Your task to perform on an android device: open app "Adobe Express: Graphic Design" (install if not already installed) and enter user name: "deliveries@gmail.com" and password: "regimentation" Image 0: 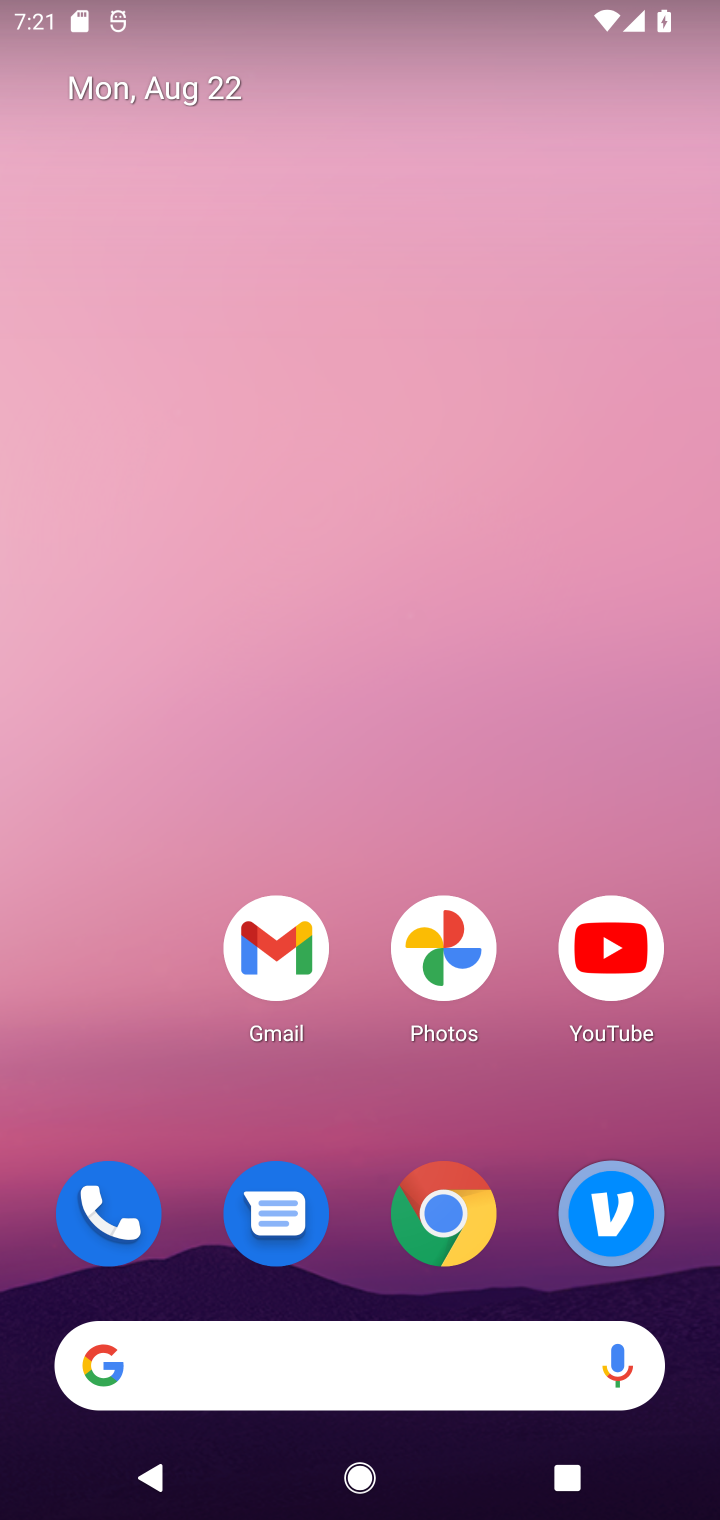
Step 0: drag from (347, 1137) to (428, 203)
Your task to perform on an android device: open app "Adobe Express: Graphic Design" (install if not already installed) and enter user name: "deliveries@gmail.com" and password: "regimentation" Image 1: 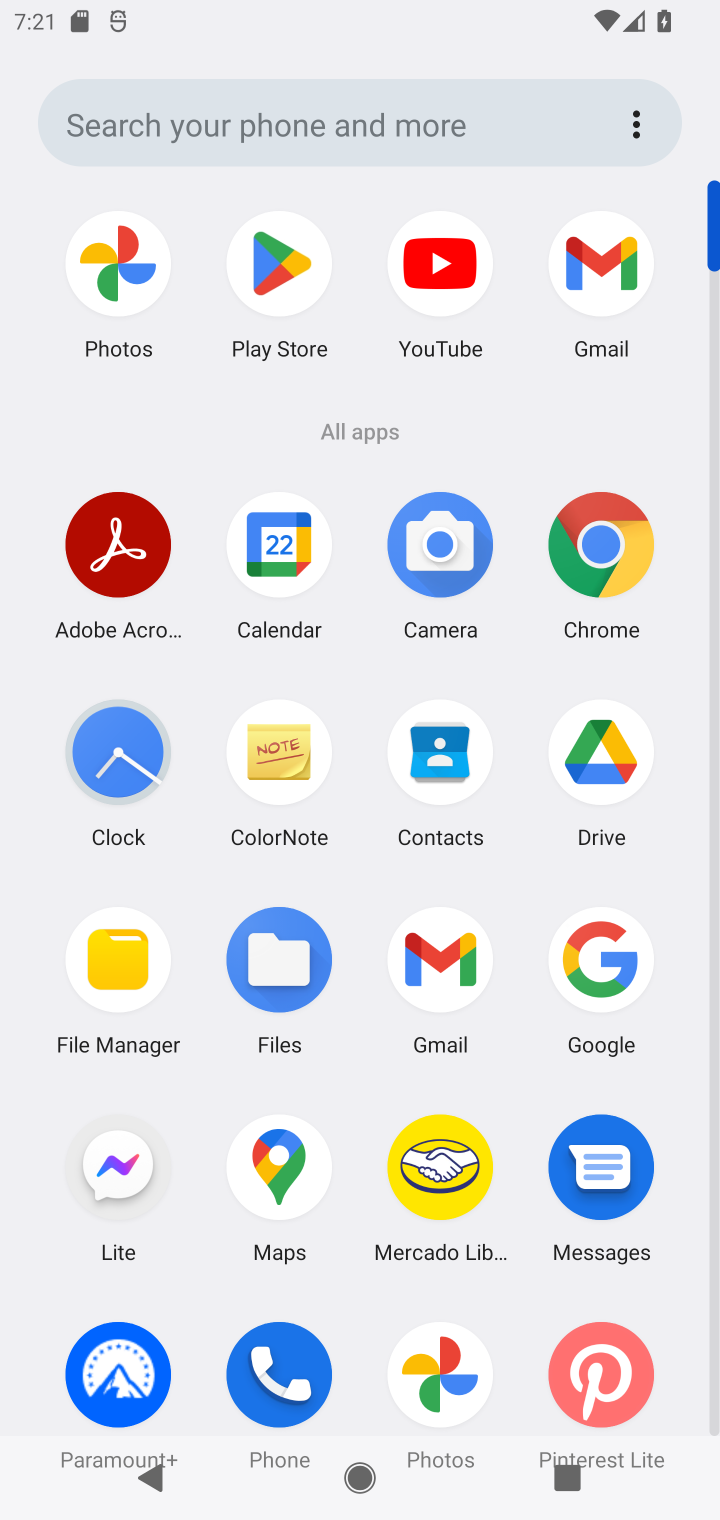
Step 1: click (274, 260)
Your task to perform on an android device: open app "Adobe Express: Graphic Design" (install if not already installed) and enter user name: "deliveries@gmail.com" and password: "regimentation" Image 2: 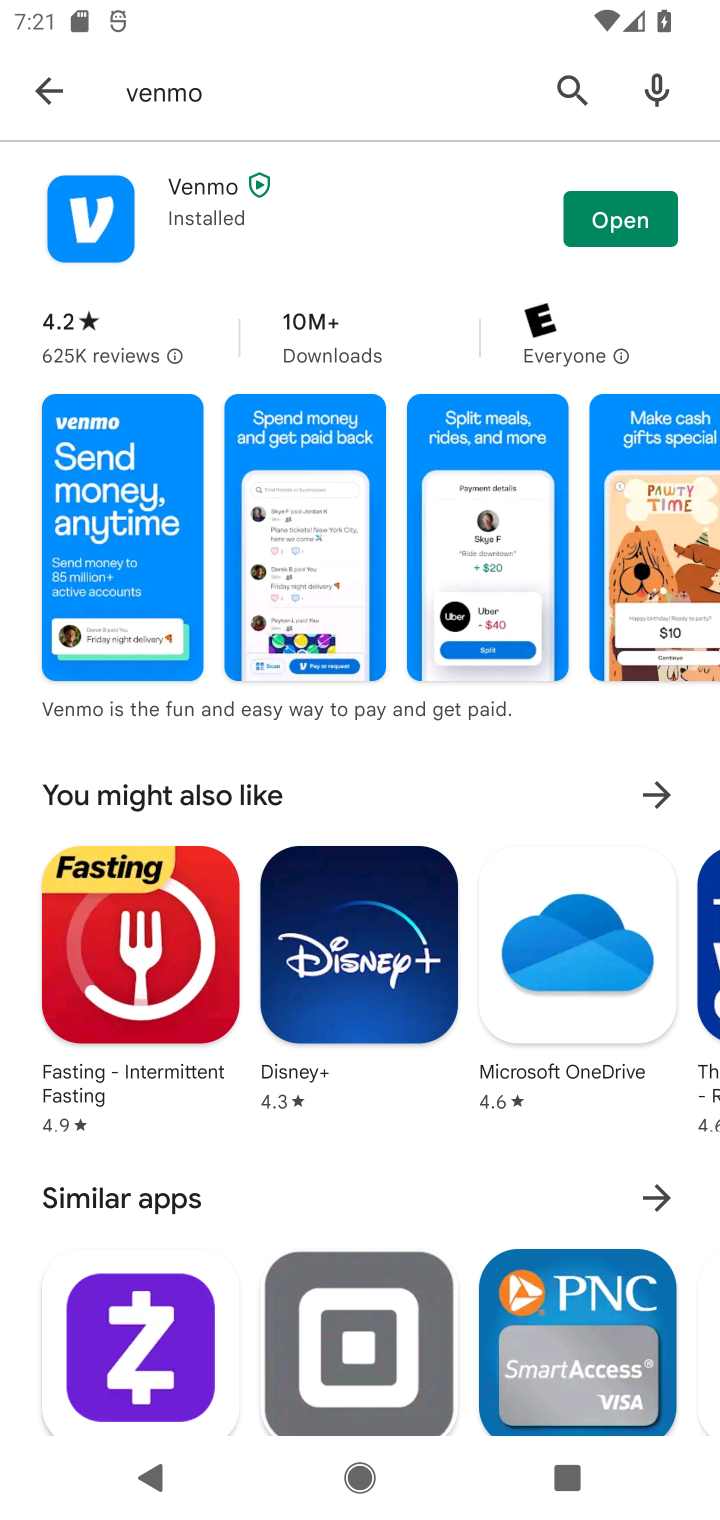
Step 2: click (572, 81)
Your task to perform on an android device: open app "Adobe Express: Graphic Design" (install if not already installed) and enter user name: "deliveries@gmail.com" and password: "regimentation" Image 3: 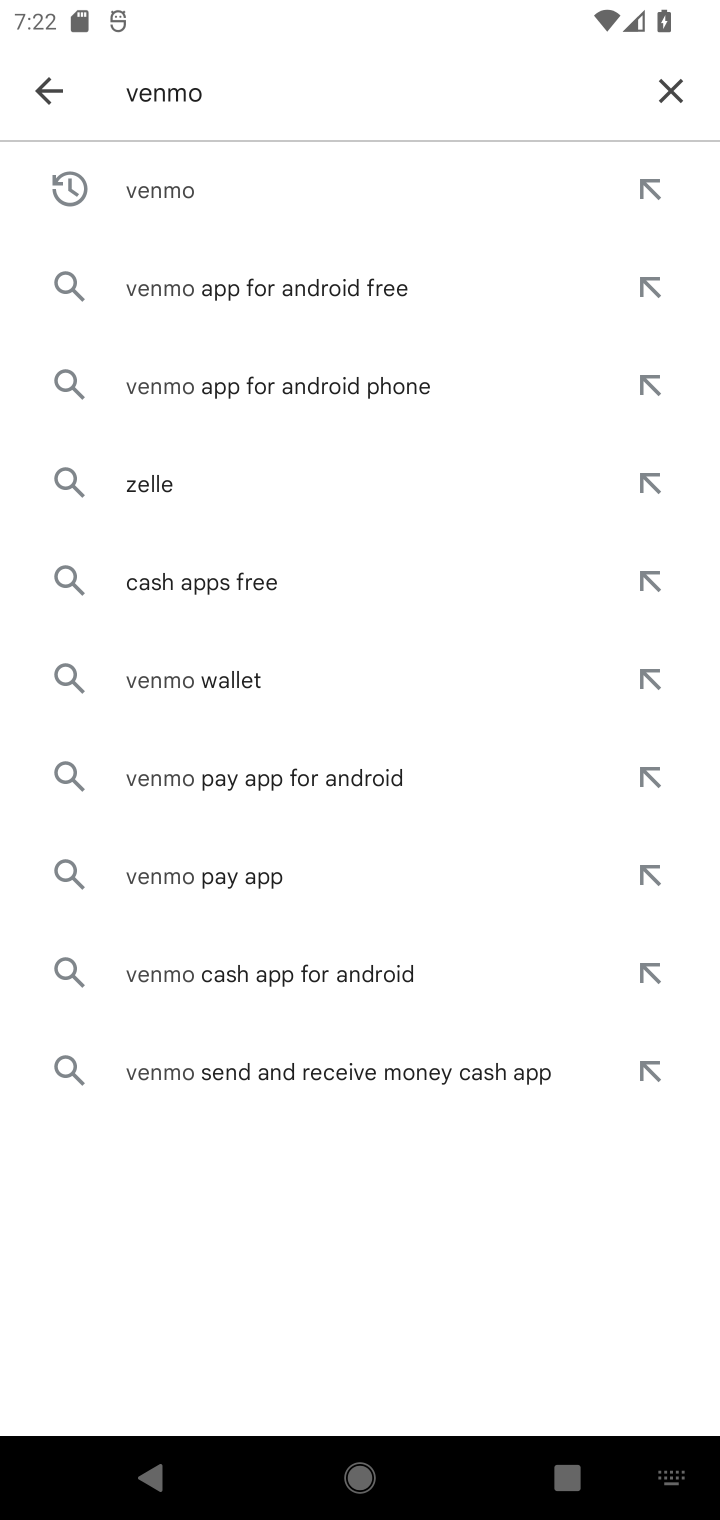
Step 3: click (670, 90)
Your task to perform on an android device: open app "Adobe Express: Graphic Design" (install if not already installed) and enter user name: "deliveries@gmail.com" and password: "regimentation" Image 4: 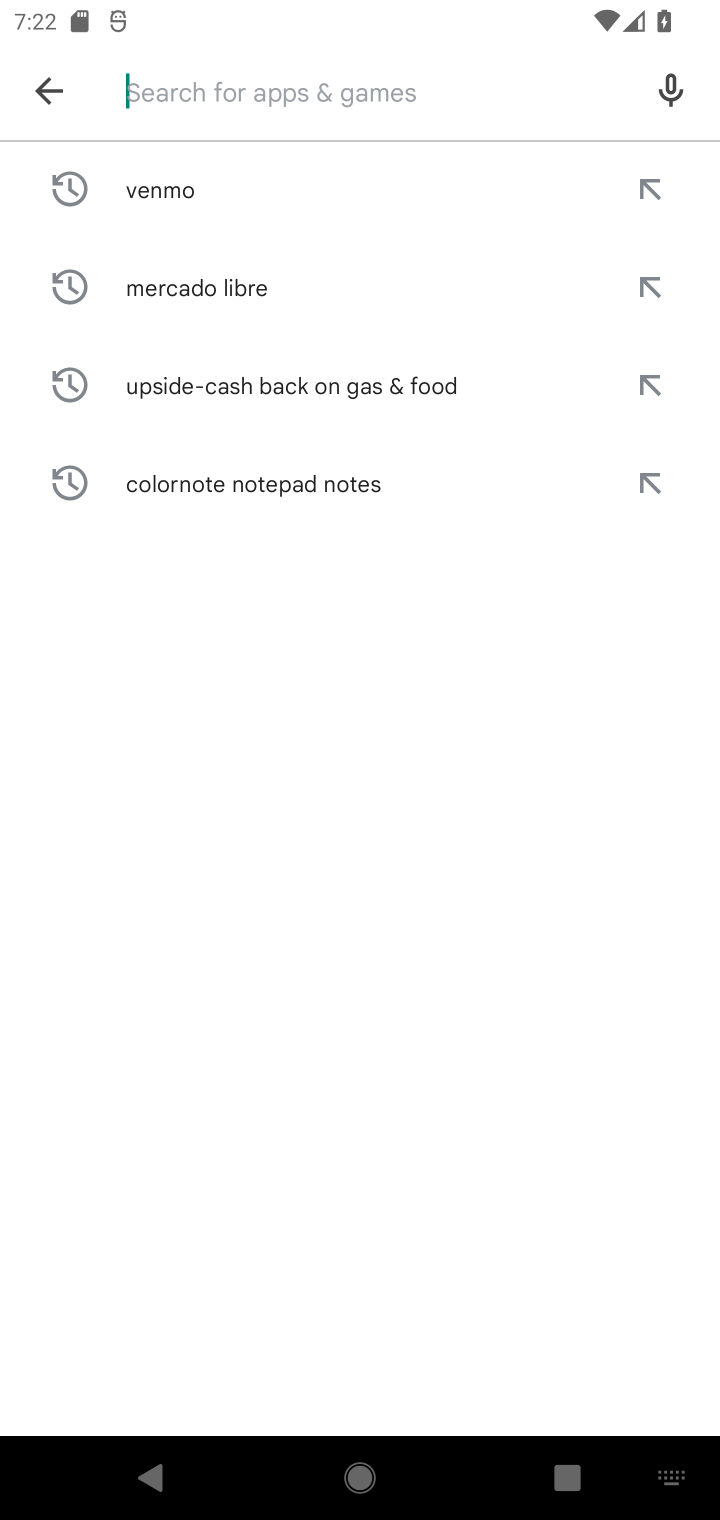
Step 4: type "Adobe Express: Graphic Design"
Your task to perform on an android device: open app "Adobe Express: Graphic Design" (install if not already installed) and enter user name: "deliveries@gmail.com" and password: "regimentation" Image 5: 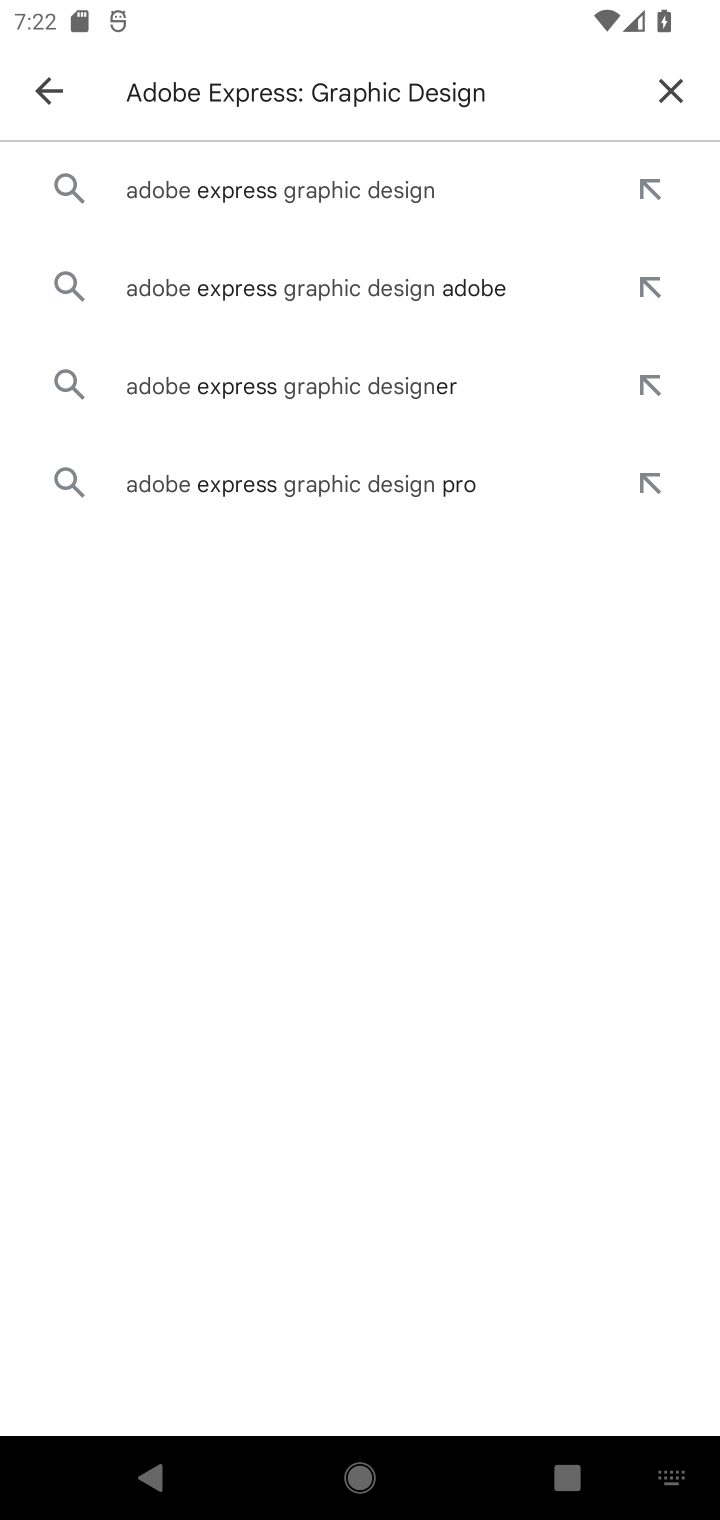
Step 5: click (249, 186)
Your task to perform on an android device: open app "Adobe Express: Graphic Design" (install if not already installed) and enter user name: "deliveries@gmail.com" and password: "regimentation" Image 6: 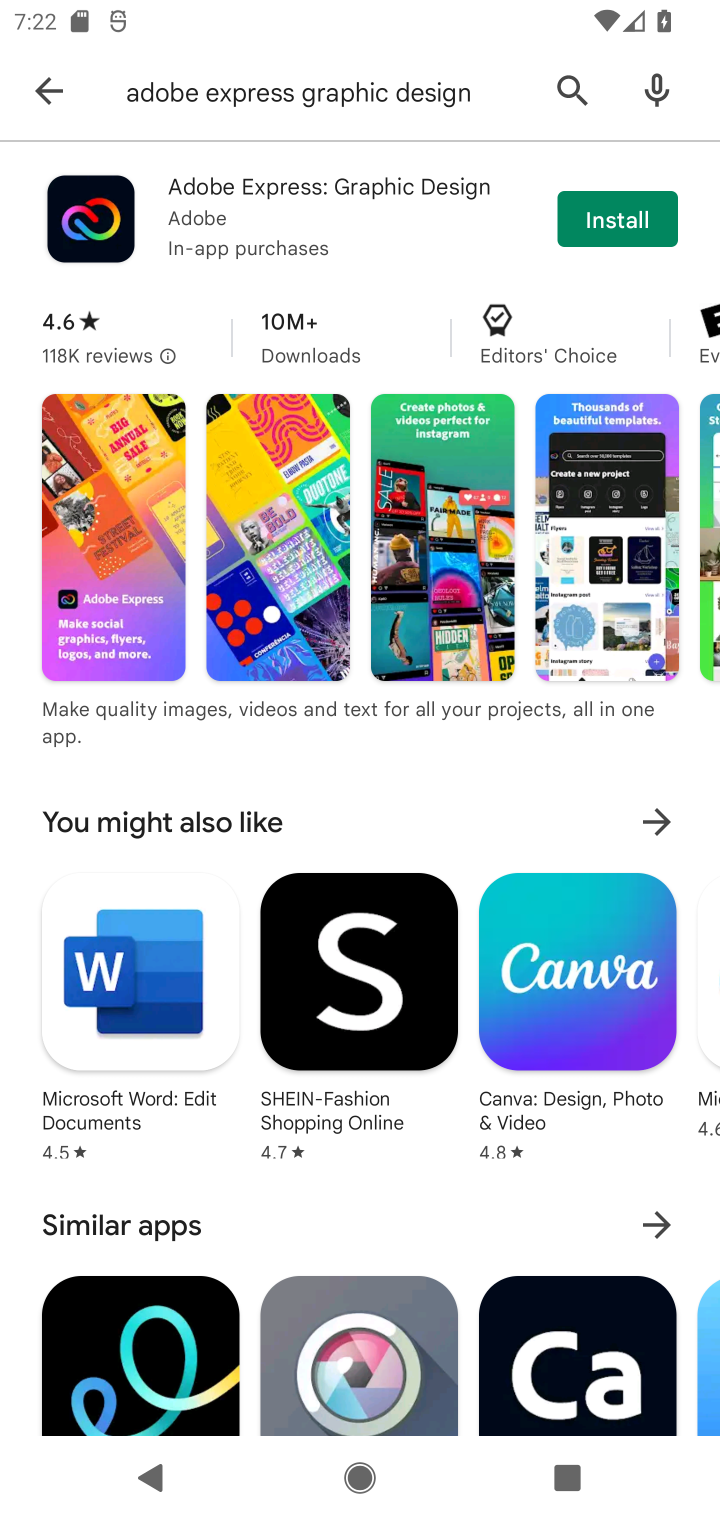
Step 6: click (614, 213)
Your task to perform on an android device: open app "Adobe Express: Graphic Design" (install if not already installed) and enter user name: "deliveries@gmail.com" and password: "regimentation" Image 7: 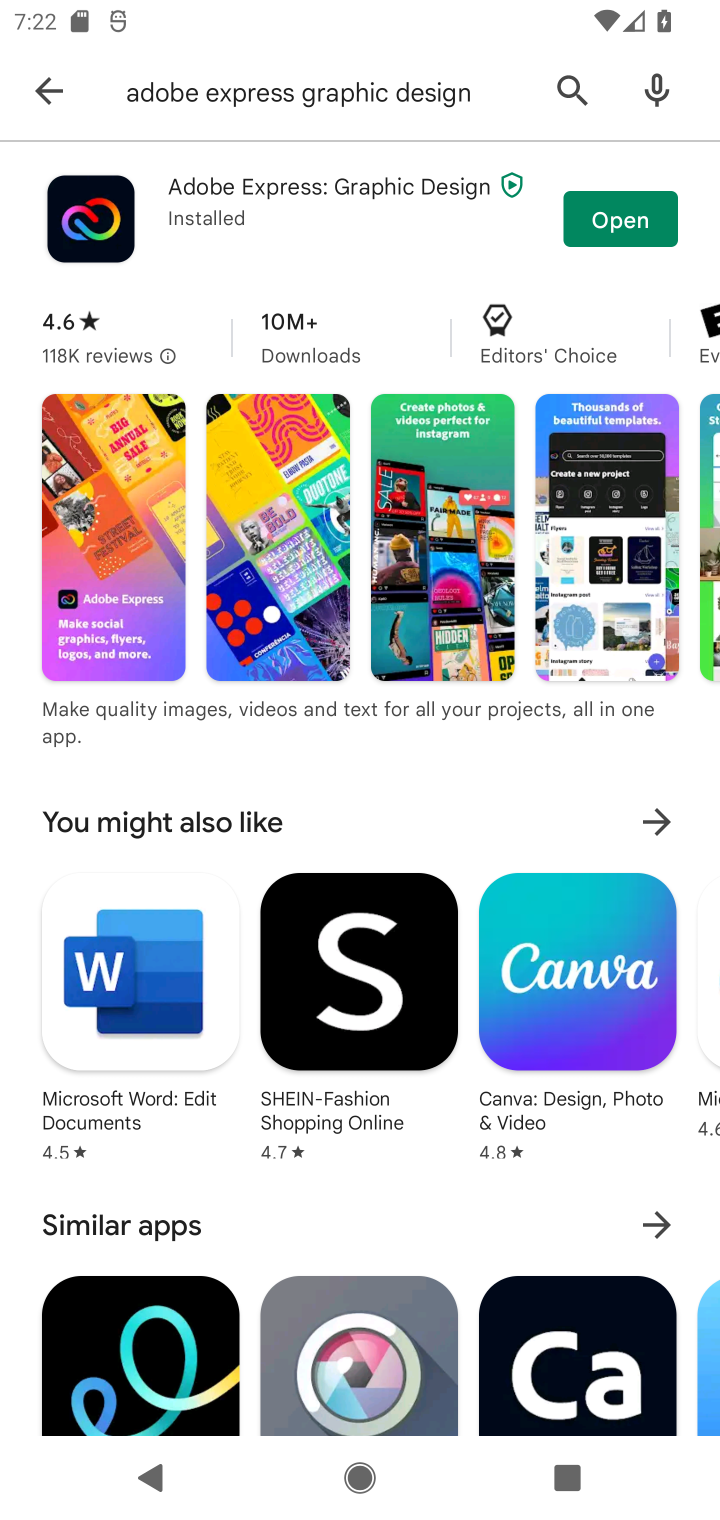
Step 7: click (611, 205)
Your task to perform on an android device: open app "Adobe Express: Graphic Design" (install if not already installed) and enter user name: "deliveries@gmail.com" and password: "regimentation" Image 8: 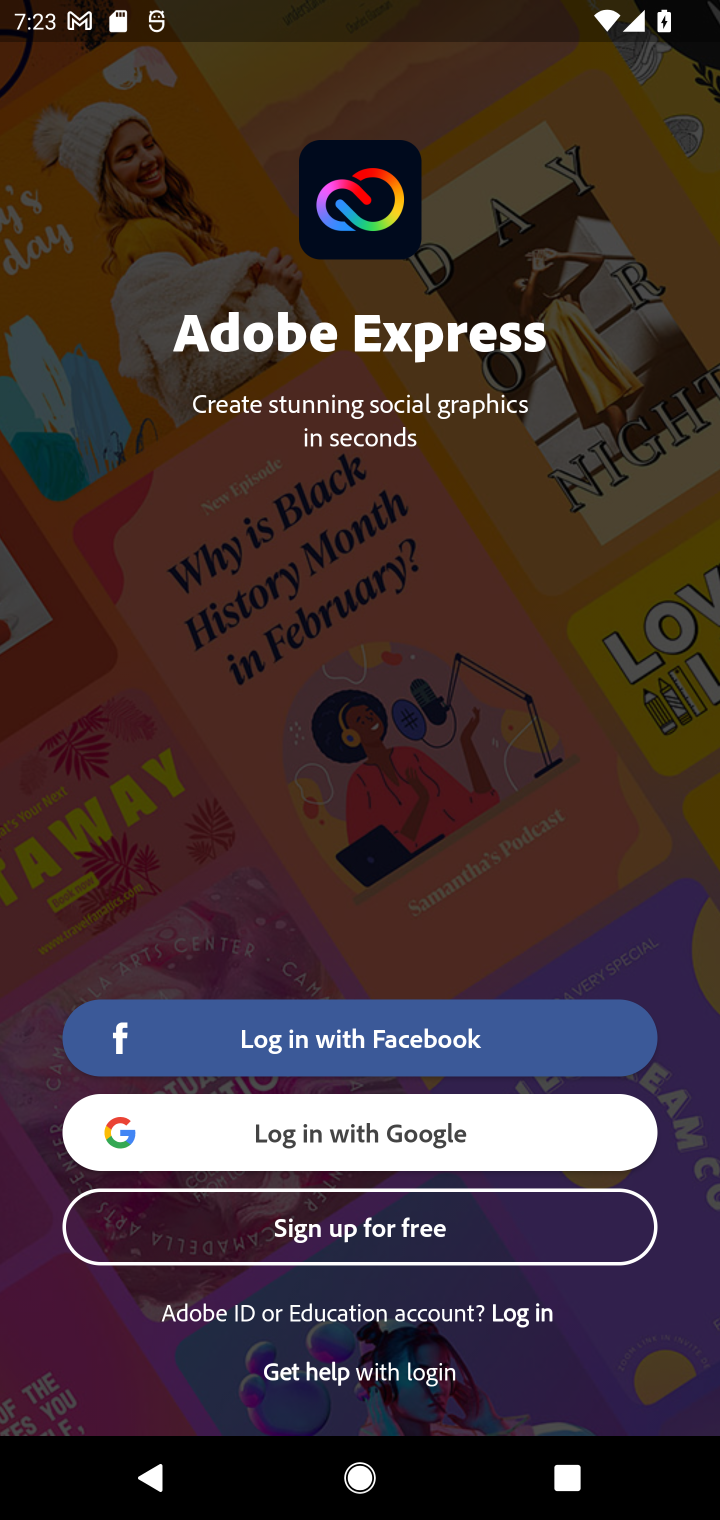
Step 8: click (372, 1225)
Your task to perform on an android device: open app "Adobe Express: Graphic Design" (install if not already installed) and enter user name: "deliveries@gmail.com" and password: "regimentation" Image 9: 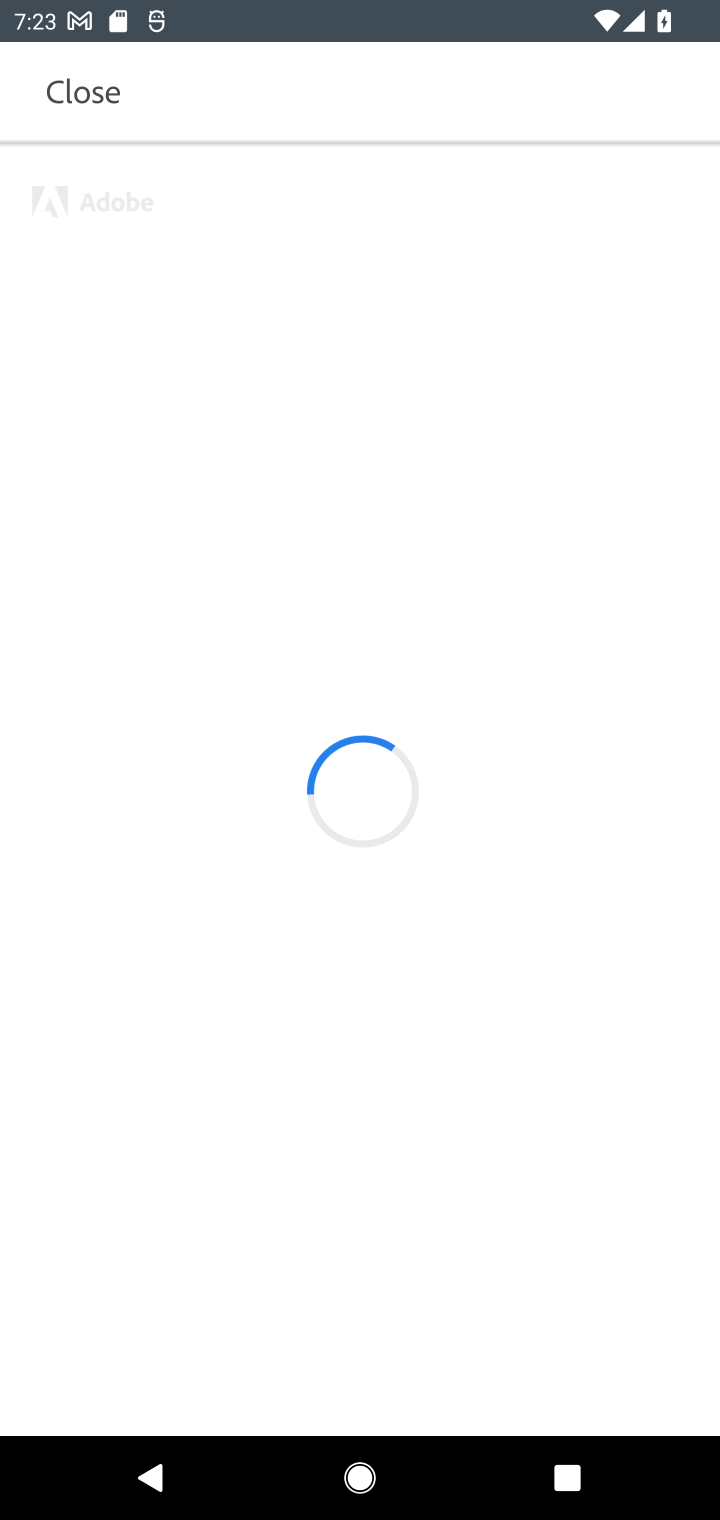
Step 9: click (64, 87)
Your task to perform on an android device: open app "Adobe Express: Graphic Design" (install if not already installed) and enter user name: "deliveries@gmail.com" and password: "regimentation" Image 10: 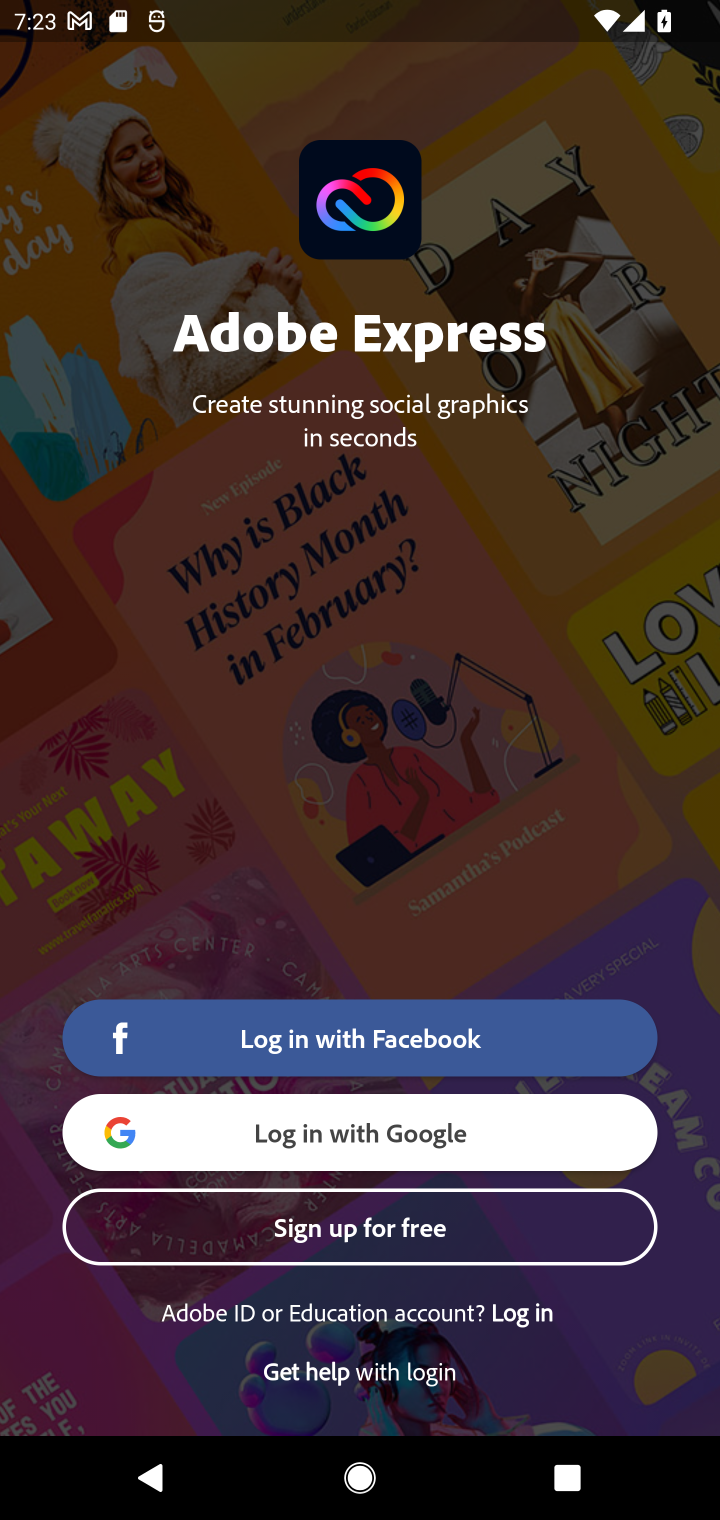
Step 10: click (525, 1310)
Your task to perform on an android device: open app "Adobe Express: Graphic Design" (install if not already installed) and enter user name: "deliveries@gmail.com" and password: "regimentation" Image 11: 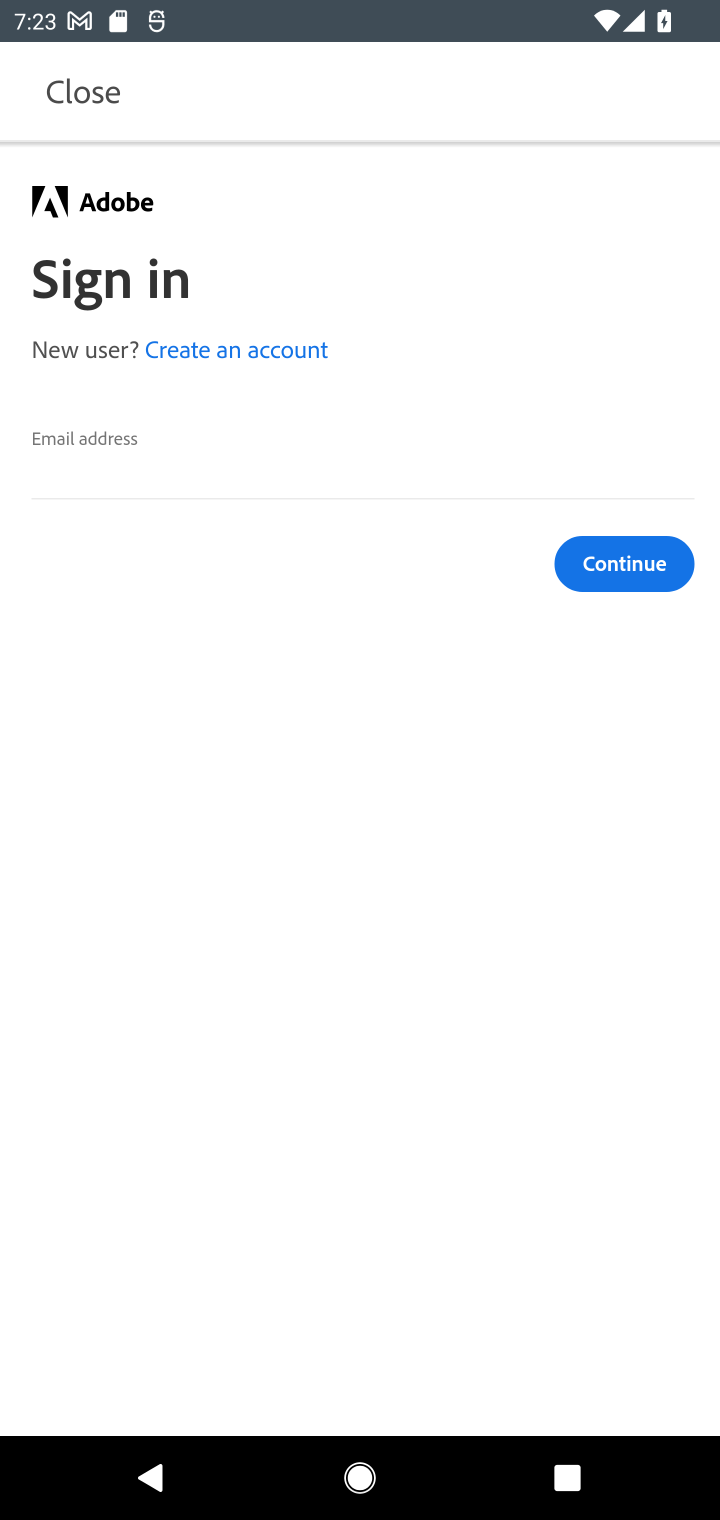
Step 11: task complete